Your task to perform on an android device: turn on bluetooth scan Image 0: 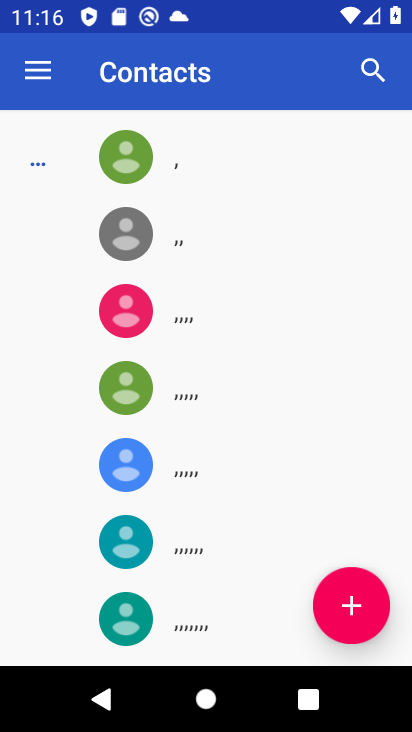
Step 0: press home button
Your task to perform on an android device: turn on bluetooth scan Image 1: 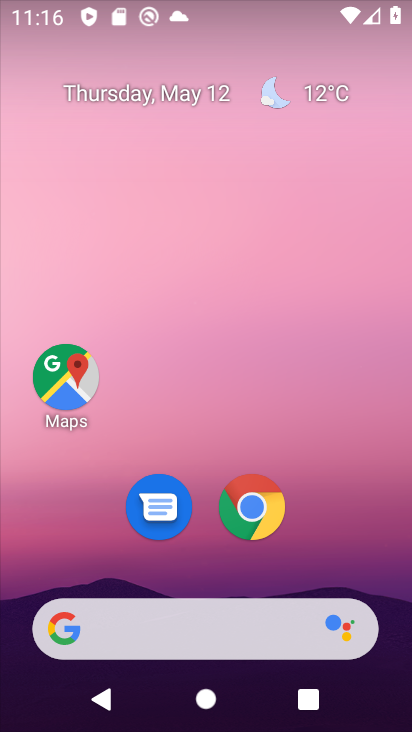
Step 1: drag from (174, 562) to (371, 32)
Your task to perform on an android device: turn on bluetooth scan Image 2: 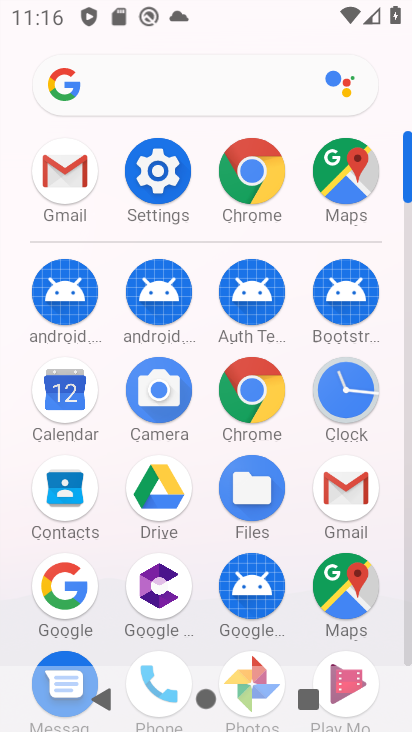
Step 2: click (171, 204)
Your task to perform on an android device: turn on bluetooth scan Image 3: 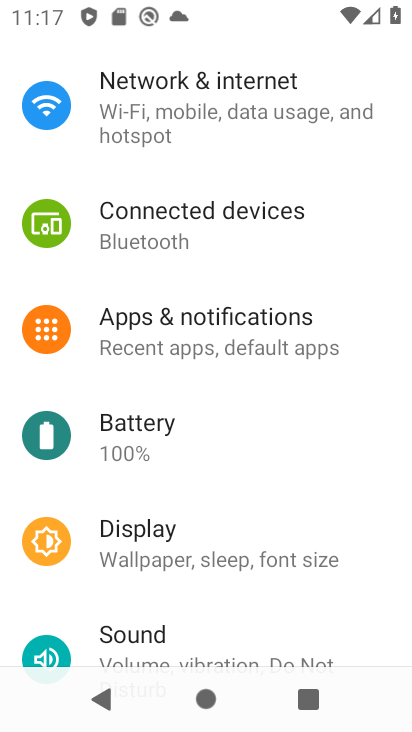
Step 3: drag from (166, 501) to (189, 235)
Your task to perform on an android device: turn on bluetooth scan Image 4: 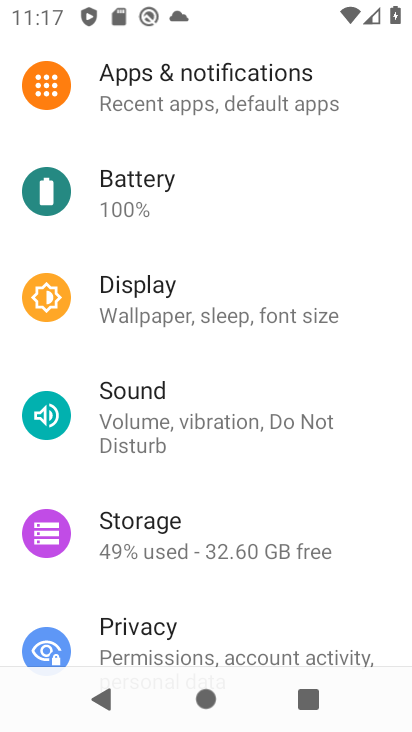
Step 4: drag from (155, 613) to (179, 362)
Your task to perform on an android device: turn on bluetooth scan Image 5: 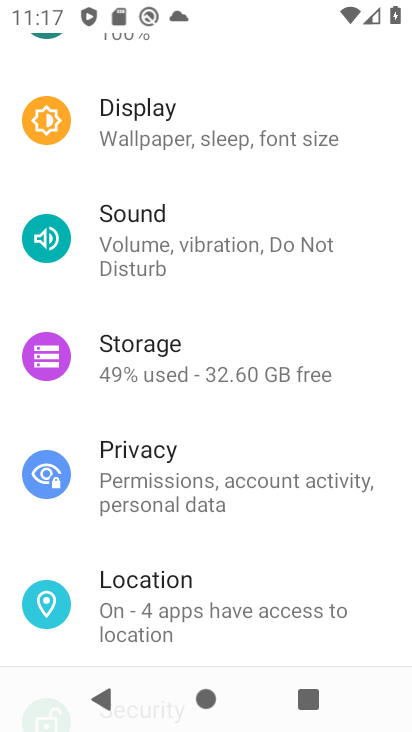
Step 5: click (161, 612)
Your task to perform on an android device: turn on bluetooth scan Image 6: 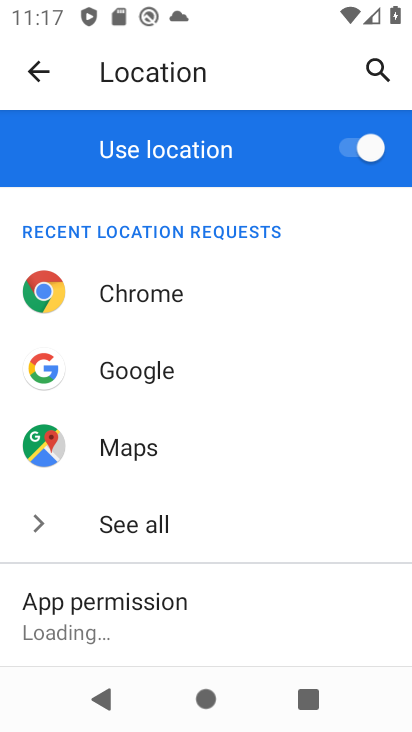
Step 6: drag from (139, 590) to (219, 136)
Your task to perform on an android device: turn on bluetooth scan Image 7: 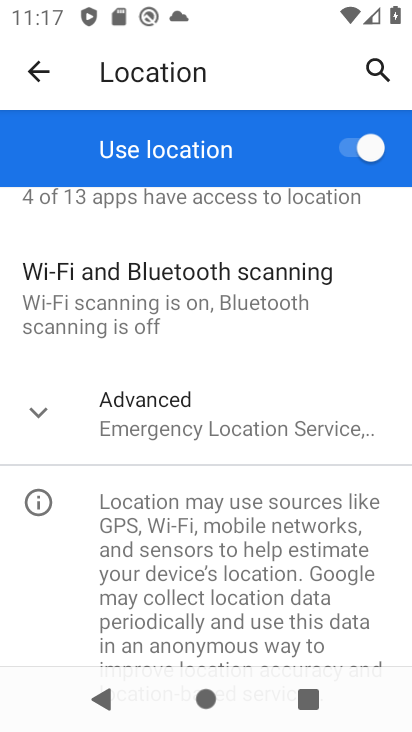
Step 7: click (198, 426)
Your task to perform on an android device: turn on bluetooth scan Image 8: 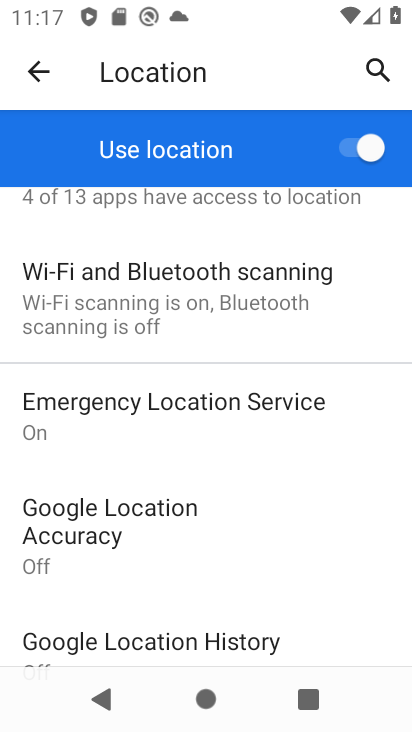
Step 8: drag from (194, 545) to (192, 260)
Your task to perform on an android device: turn on bluetooth scan Image 9: 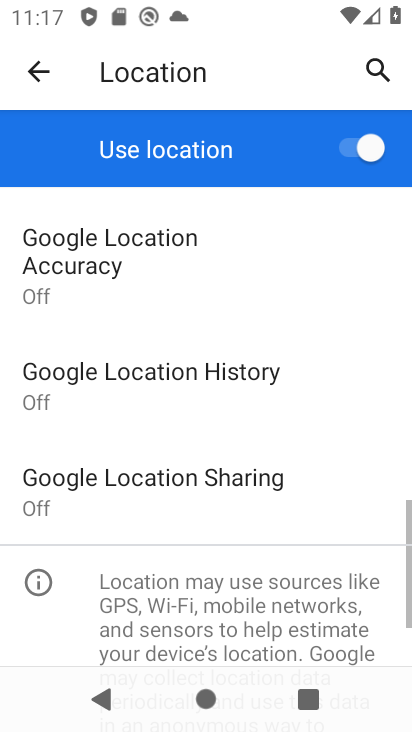
Step 9: drag from (192, 256) to (192, 683)
Your task to perform on an android device: turn on bluetooth scan Image 10: 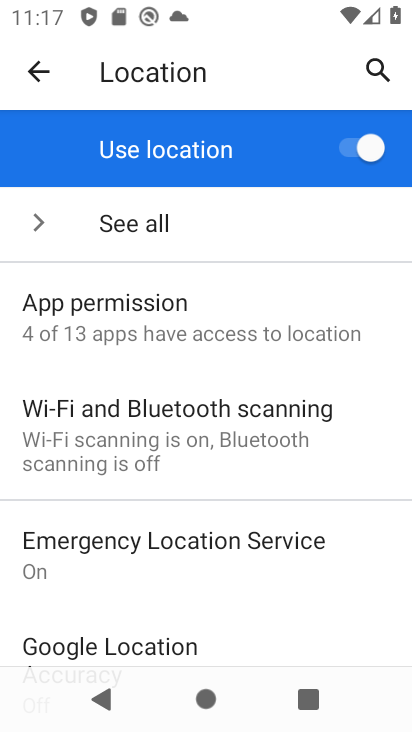
Step 10: drag from (166, 281) to (190, 713)
Your task to perform on an android device: turn on bluetooth scan Image 11: 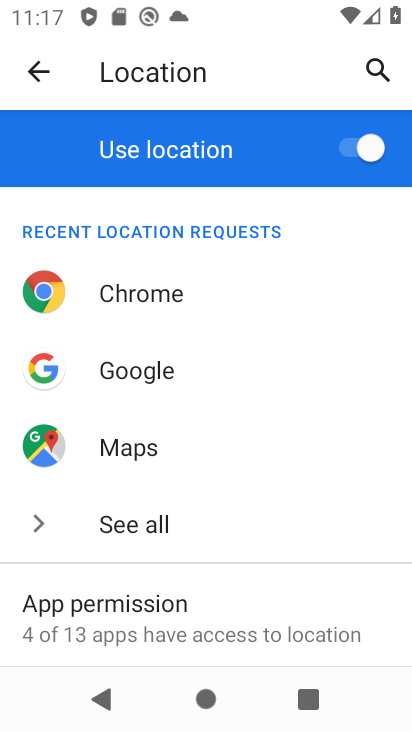
Step 11: drag from (120, 602) to (165, 304)
Your task to perform on an android device: turn on bluetooth scan Image 12: 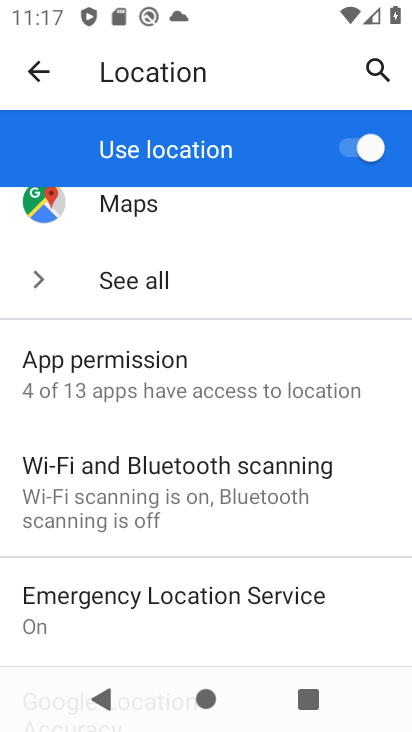
Step 12: click (141, 510)
Your task to perform on an android device: turn on bluetooth scan Image 13: 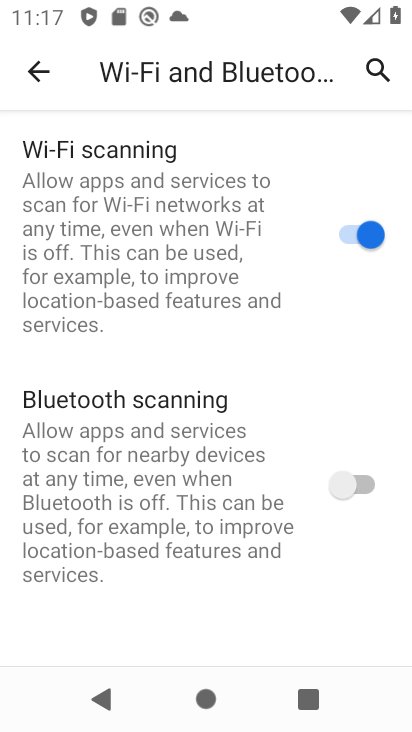
Step 13: click (375, 484)
Your task to perform on an android device: turn on bluetooth scan Image 14: 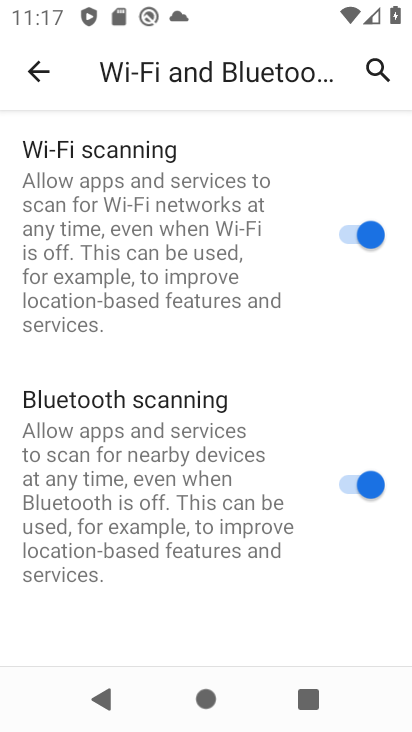
Step 14: task complete